Your task to perform on an android device: turn on priority inbox in the gmail app Image 0: 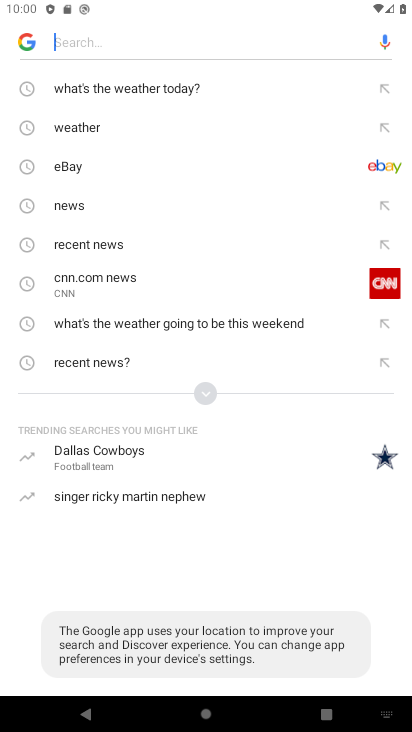
Step 0: press home button
Your task to perform on an android device: turn on priority inbox in the gmail app Image 1: 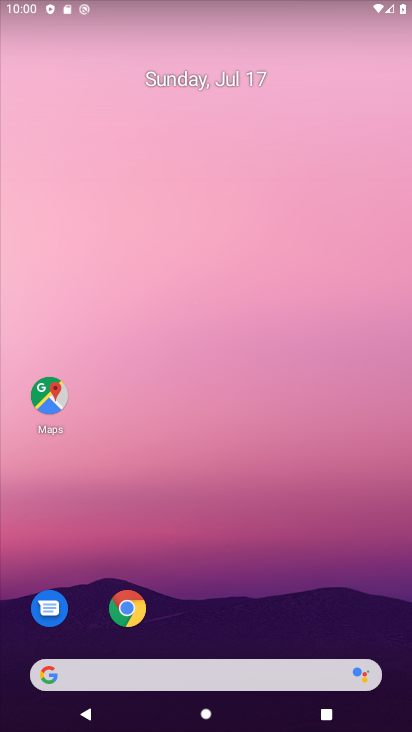
Step 1: drag from (214, 599) to (220, 109)
Your task to perform on an android device: turn on priority inbox in the gmail app Image 2: 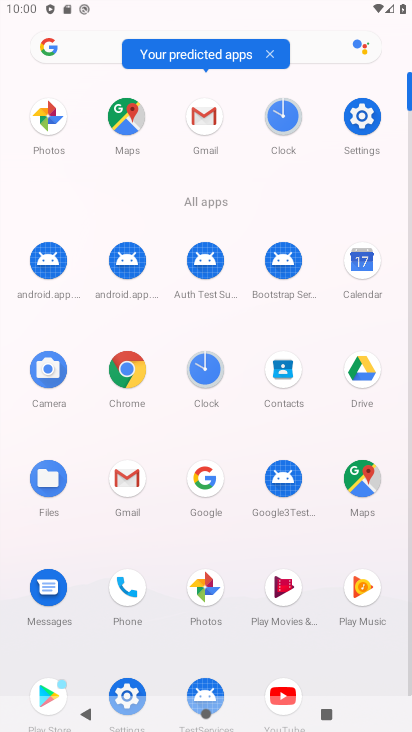
Step 2: click (205, 118)
Your task to perform on an android device: turn on priority inbox in the gmail app Image 3: 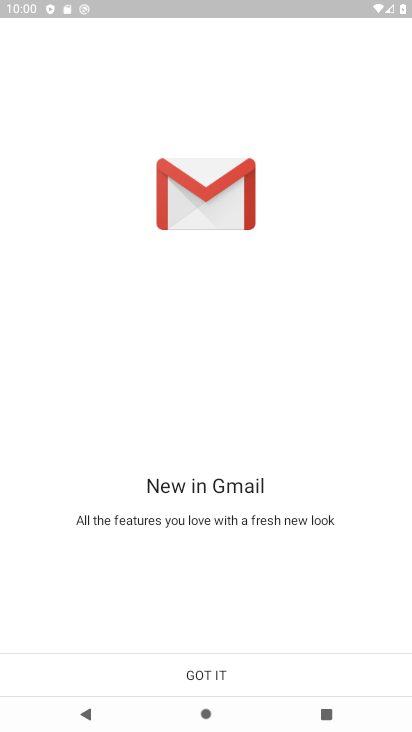
Step 3: click (211, 666)
Your task to perform on an android device: turn on priority inbox in the gmail app Image 4: 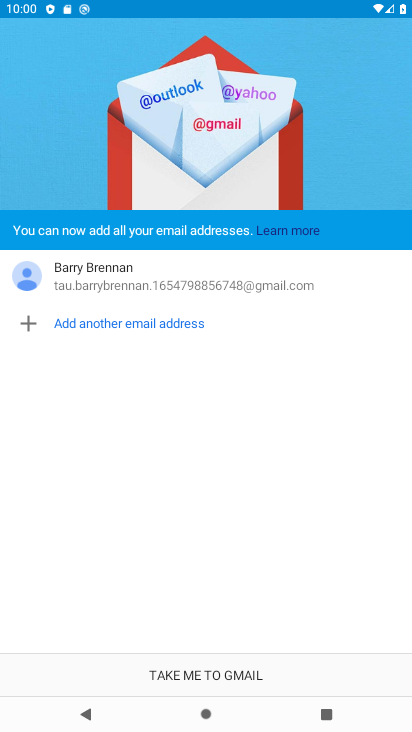
Step 4: click (211, 666)
Your task to perform on an android device: turn on priority inbox in the gmail app Image 5: 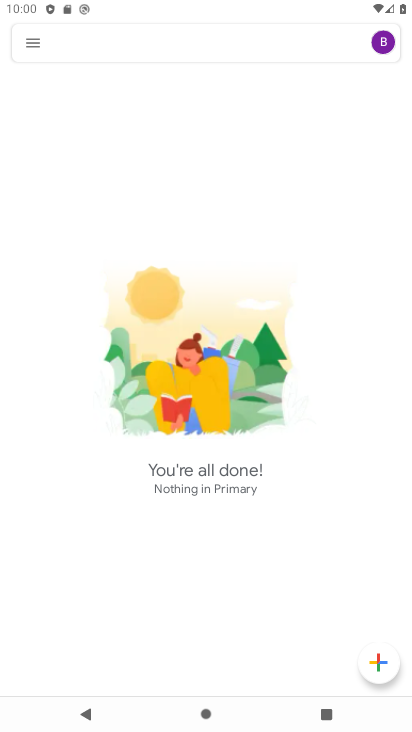
Step 5: click (33, 43)
Your task to perform on an android device: turn on priority inbox in the gmail app Image 6: 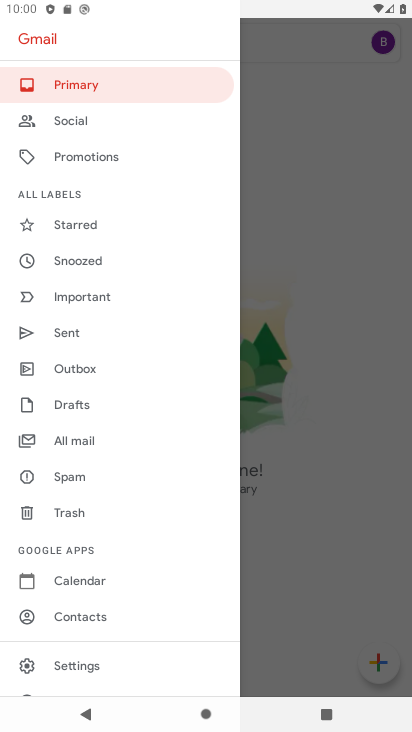
Step 6: click (92, 666)
Your task to perform on an android device: turn on priority inbox in the gmail app Image 7: 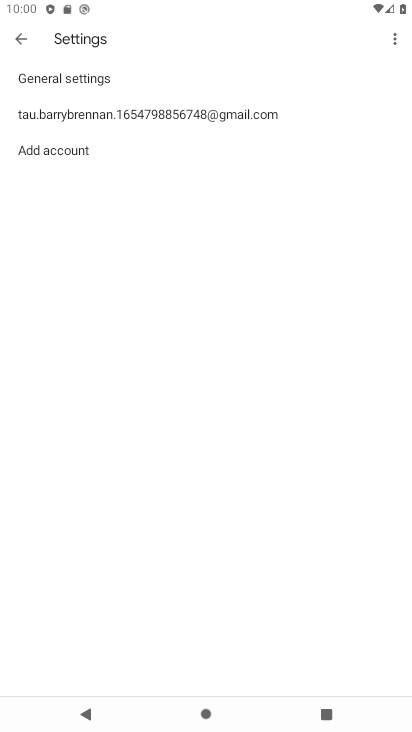
Step 7: click (60, 112)
Your task to perform on an android device: turn on priority inbox in the gmail app Image 8: 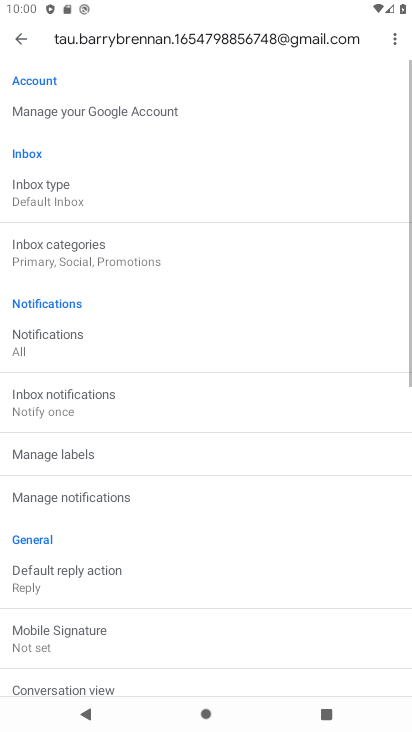
Step 8: click (60, 198)
Your task to perform on an android device: turn on priority inbox in the gmail app Image 9: 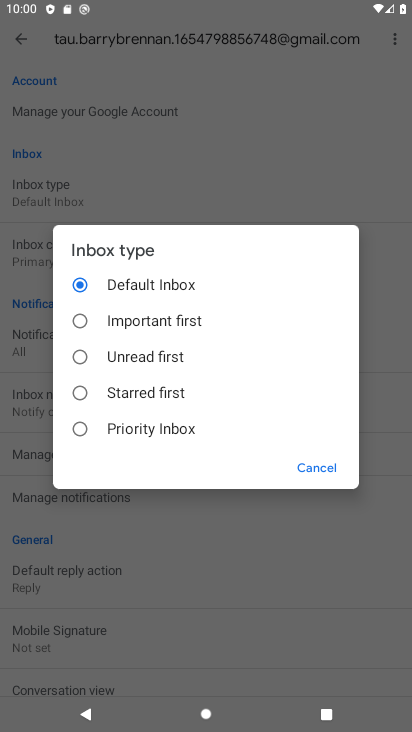
Step 9: click (79, 431)
Your task to perform on an android device: turn on priority inbox in the gmail app Image 10: 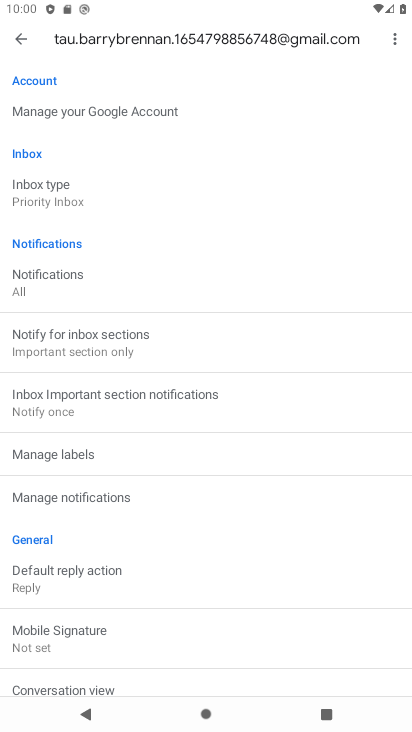
Step 10: task complete